Your task to perform on an android device: turn on sleep mode Image 0: 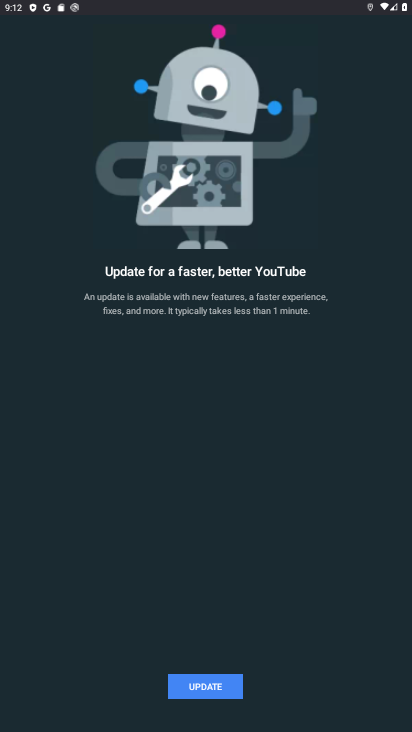
Step 0: press home button
Your task to perform on an android device: turn on sleep mode Image 1: 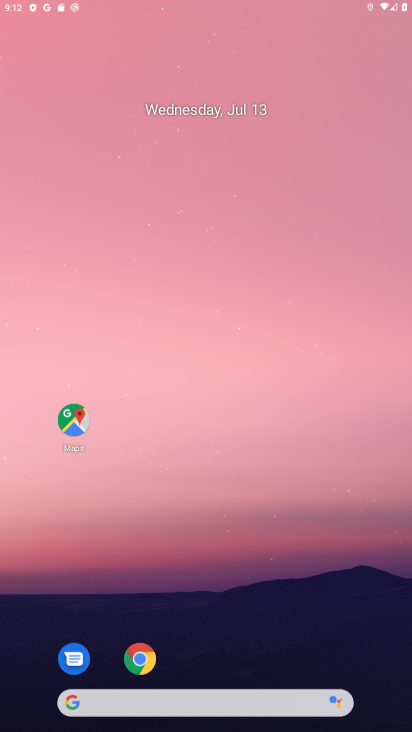
Step 1: press home button
Your task to perform on an android device: turn on sleep mode Image 2: 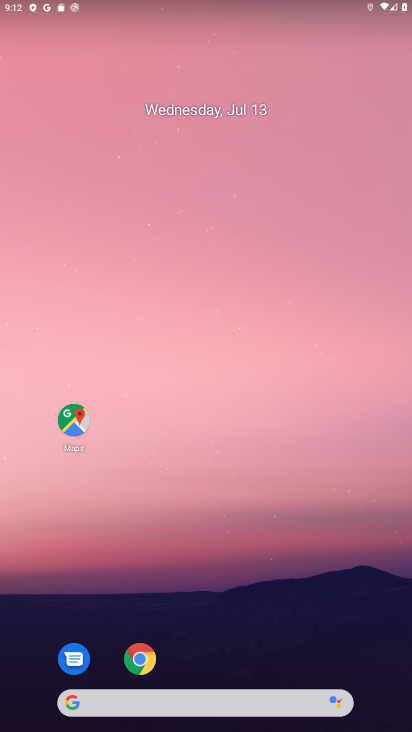
Step 2: drag from (223, 644) to (152, 350)
Your task to perform on an android device: turn on sleep mode Image 3: 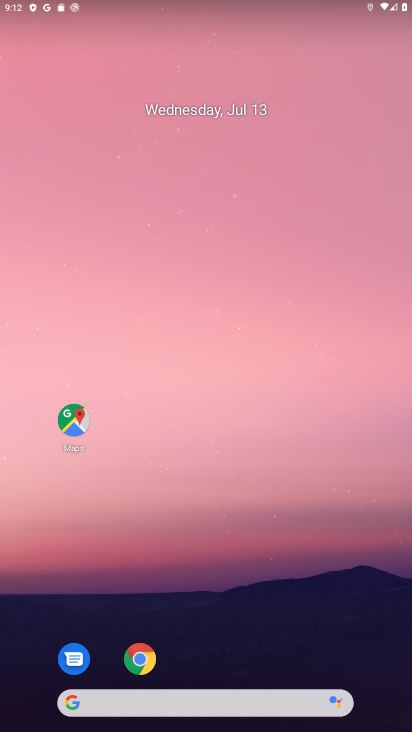
Step 3: drag from (215, 578) to (191, 306)
Your task to perform on an android device: turn on sleep mode Image 4: 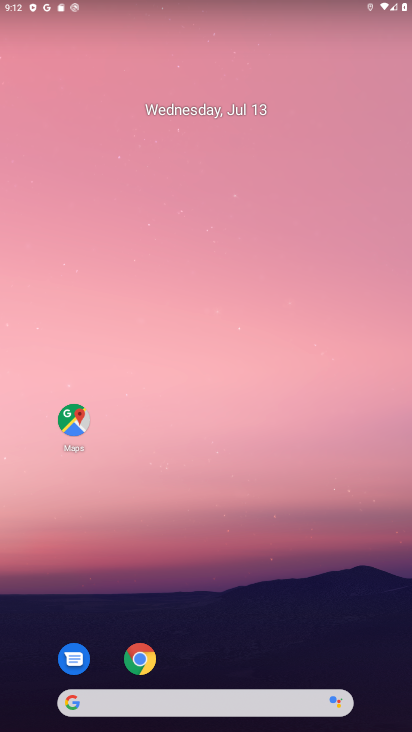
Step 4: drag from (228, 596) to (144, 237)
Your task to perform on an android device: turn on sleep mode Image 5: 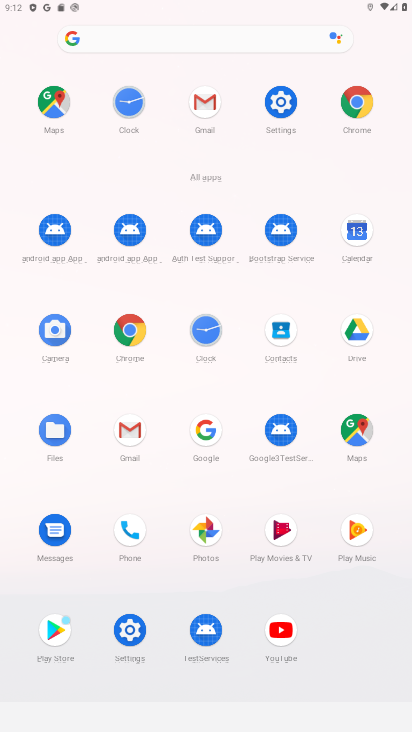
Step 5: click (278, 91)
Your task to perform on an android device: turn on sleep mode Image 6: 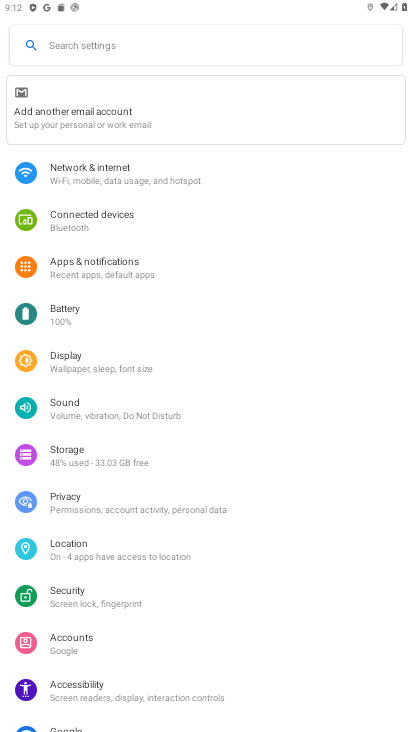
Step 6: click (76, 356)
Your task to perform on an android device: turn on sleep mode Image 7: 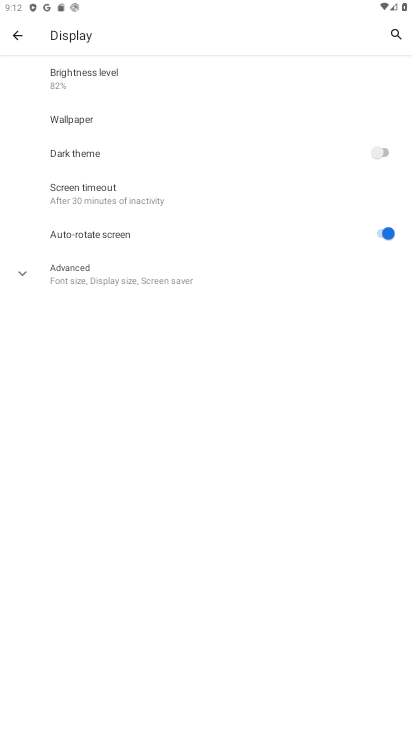
Step 7: click (20, 269)
Your task to perform on an android device: turn on sleep mode Image 8: 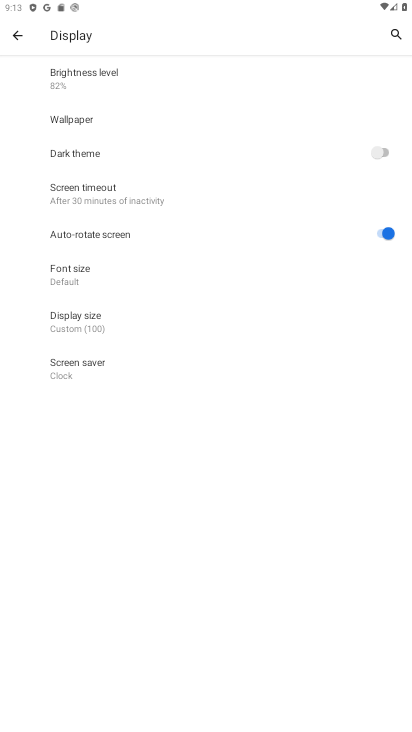
Step 8: task complete